Your task to perform on an android device: What is the news today? Image 0: 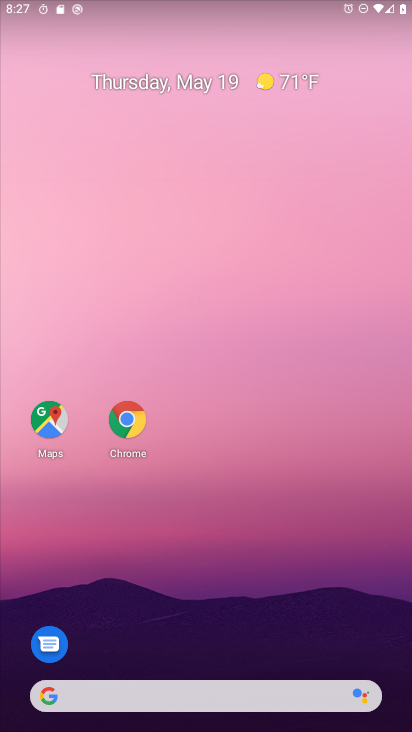
Step 0: drag from (194, 642) to (230, 351)
Your task to perform on an android device: What is the news today? Image 1: 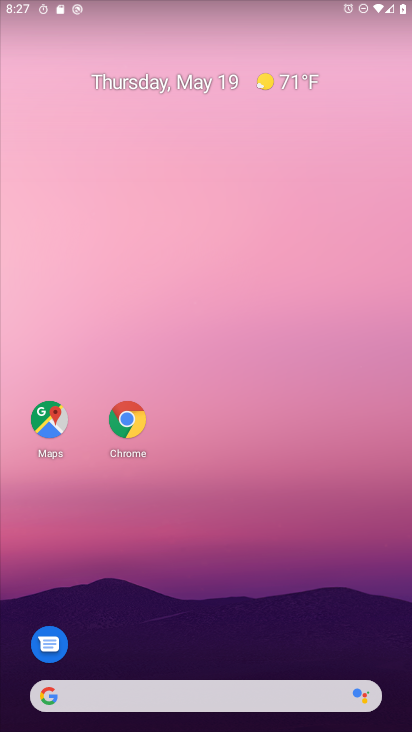
Step 1: drag from (190, 675) to (215, 273)
Your task to perform on an android device: What is the news today? Image 2: 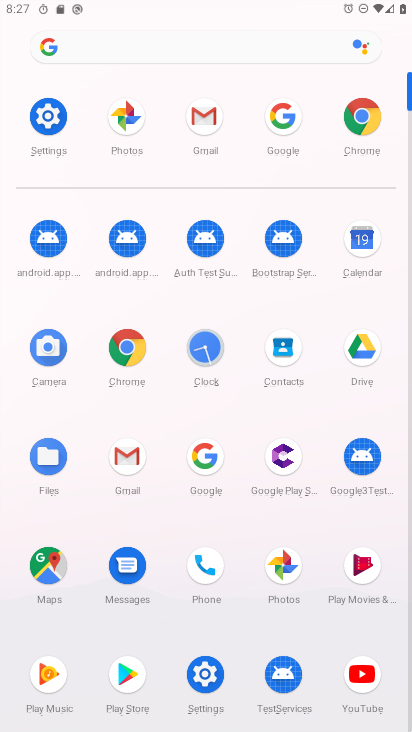
Step 2: click (287, 114)
Your task to perform on an android device: What is the news today? Image 3: 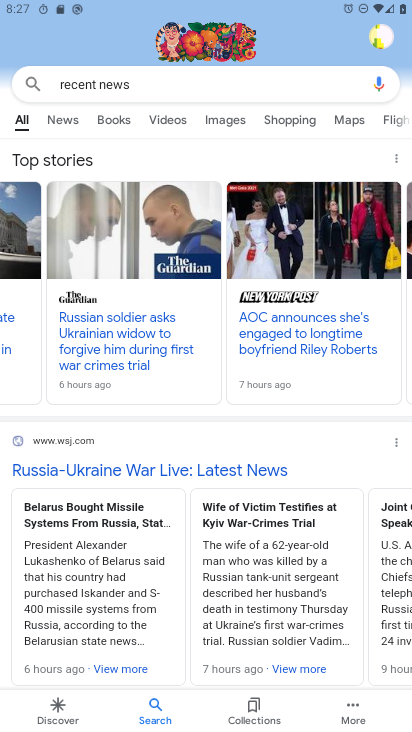
Step 3: click (148, 81)
Your task to perform on an android device: What is the news today? Image 4: 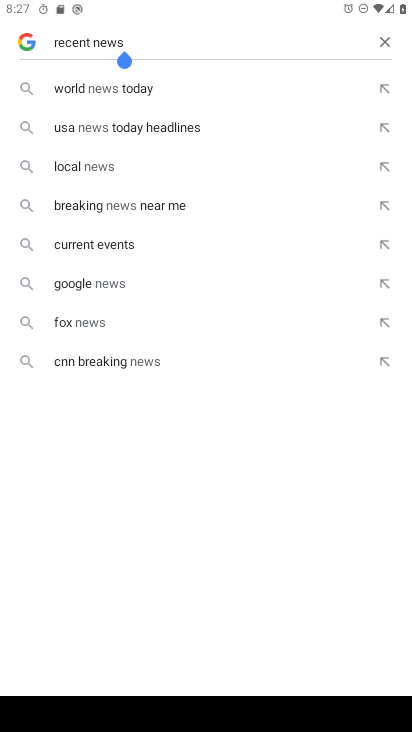
Step 4: click (386, 41)
Your task to perform on an android device: What is the news today? Image 5: 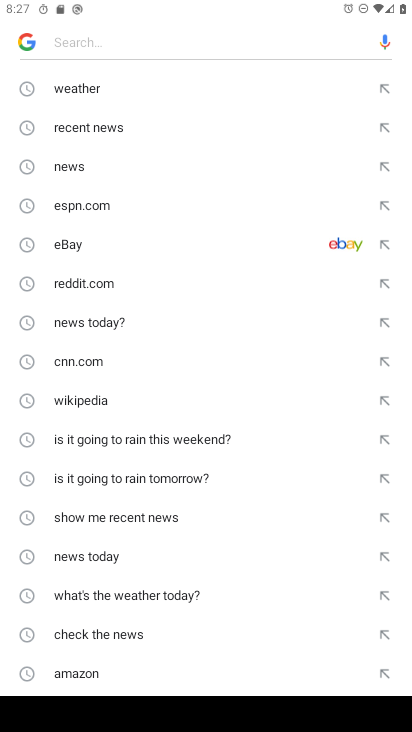
Step 5: click (86, 545)
Your task to perform on an android device: What is the news today? Image 6: 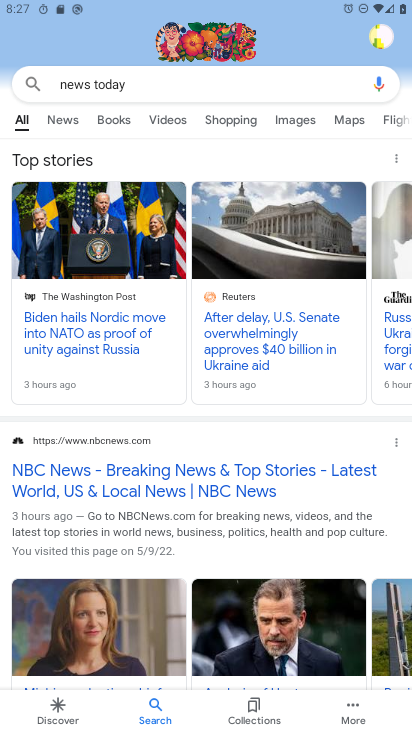
Step 6: task complete